Your task to perform on an android device: find which apps use the phone's location Image 0: 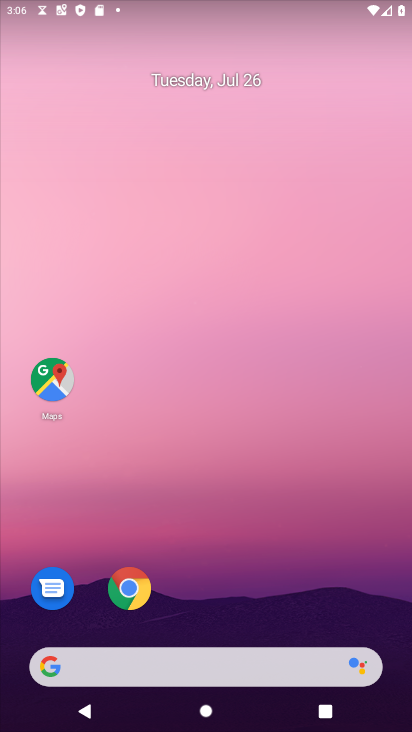
Step 0: drag from (294, 561) to (379, 0)
Your task to perform on an android device: find which apps use the phone's location Image 1: 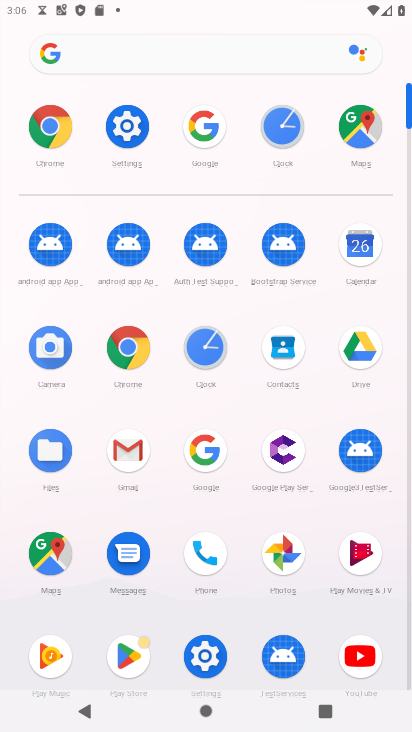
Step 1: click (112, 120)
Your task to perform on an android device: find which apps use the phone's location Image 2: 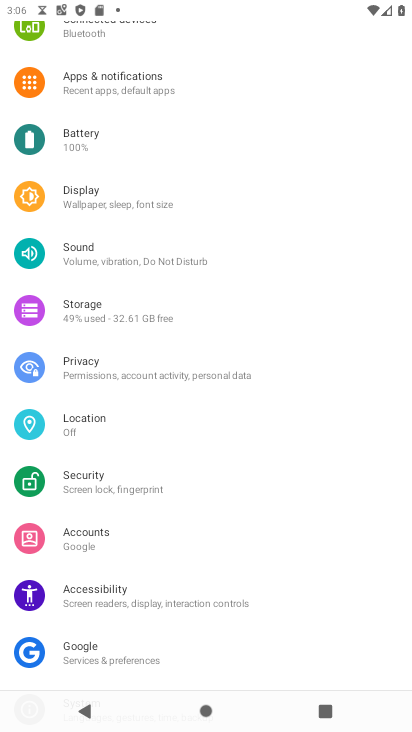
Step 2: click (110, 88)
Your task to perform on an android device: find which apps use the phone's location Image 3: 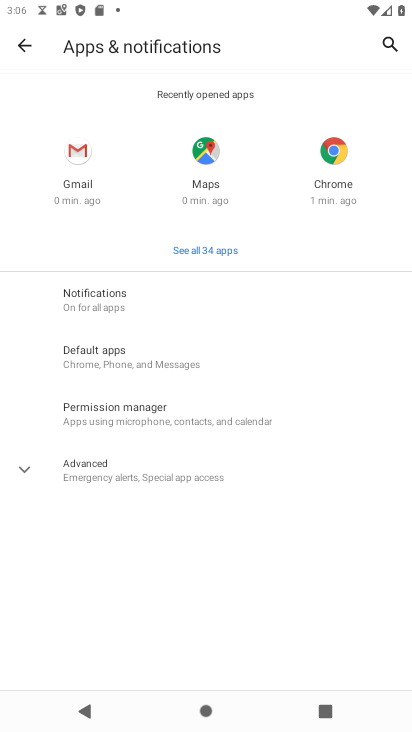
Step 3: click (151, 417)
Your task to perform on an android device: find which apps use the phone's location Image 4: 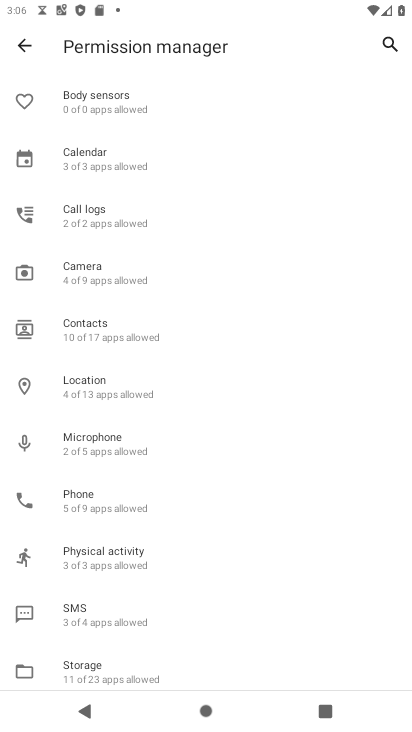
Step 4: task complete